Your task to perform on an android device: choose inbox layout in the gmail app Image 0: 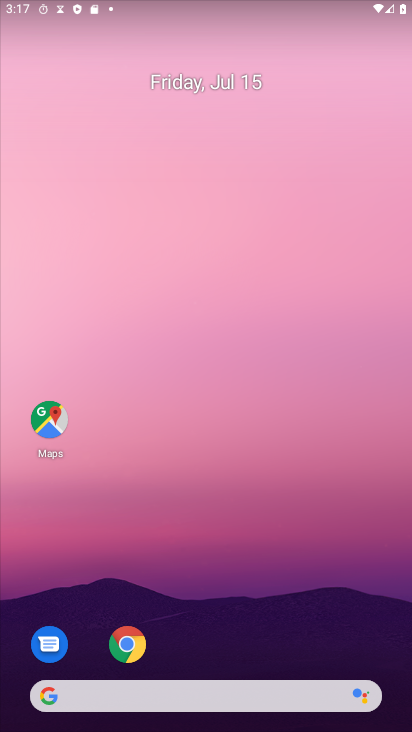
Step 0: drag from (246, 625) to (211, 100)
Your task to perform on an android device: choose inbox layout in the gmail app Image 1: 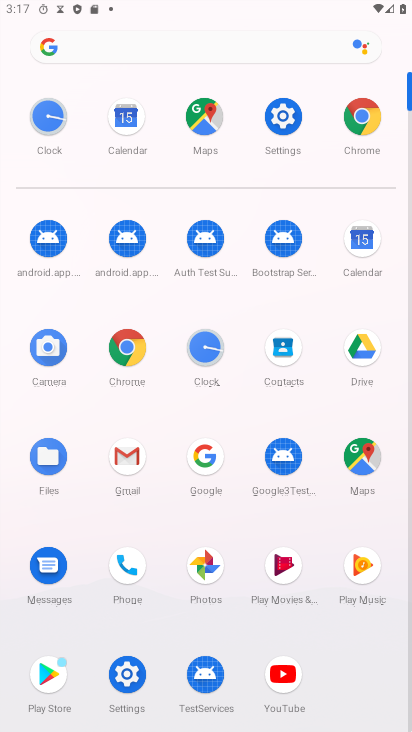
Step 1: click (129, 462)
Your task to perform on an android device: choose inbox layout in the gmail app Image 2: 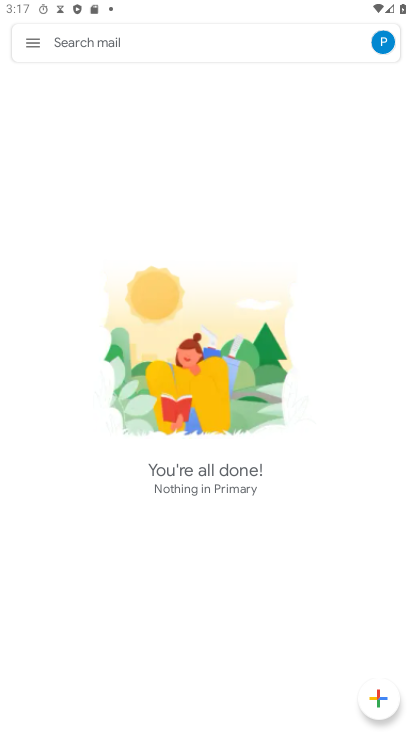
Step 2: click (29, 42)
Your task to perform on an android device: choose inbox layout in the gmail app Image 3: 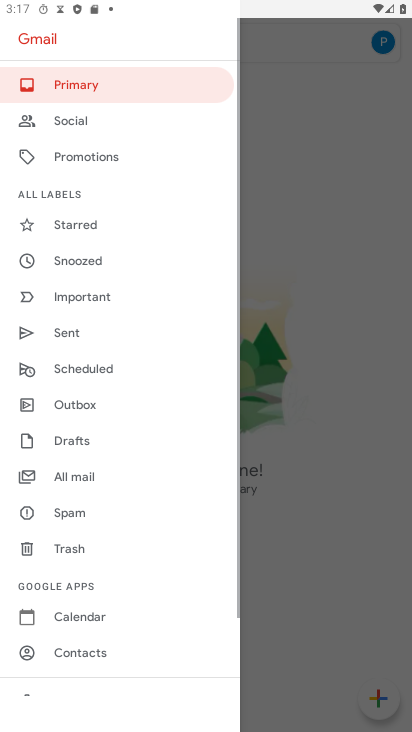
Step 3: drag from (97, 679) to (122, 269)
Your task to perform on an android device: choose inbox layout in the gmail app Image 4: 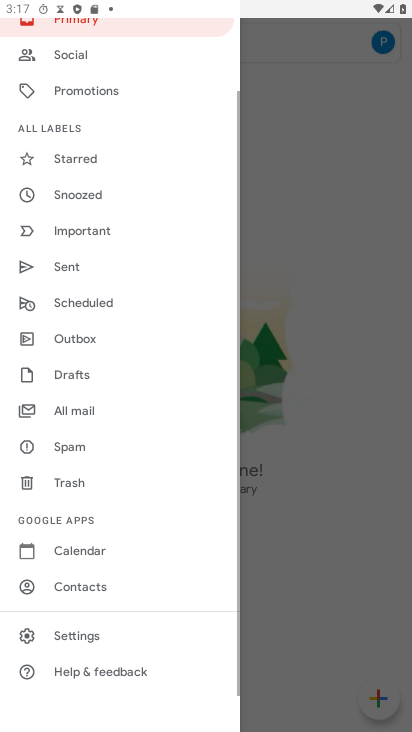
Step 4: click (121, 633)
Your task to perform on an android device: choose inbox layout in the gmail app Image 5: 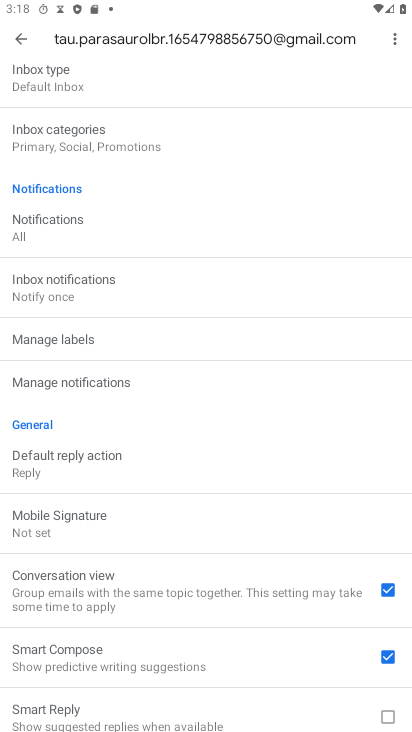
Step 5: drag from (63, 136) to (130, 679)
Your task to perform on an android device: choose inbox layout in the gmail app Image 6: 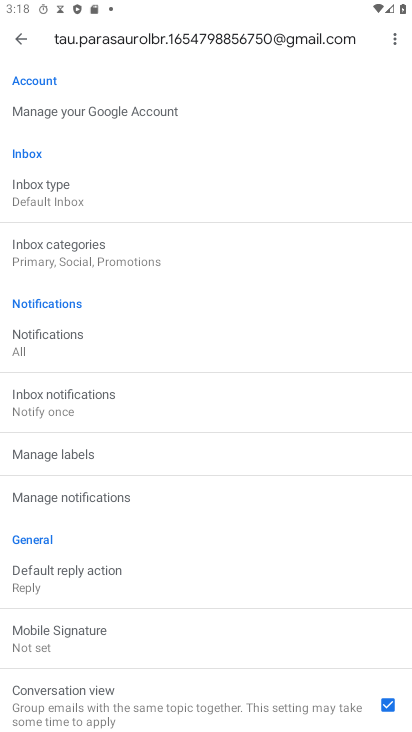
Step 6: click (42, 191)
Your task to perform on an android device: choose inbox layout in the gmail app Image 7: 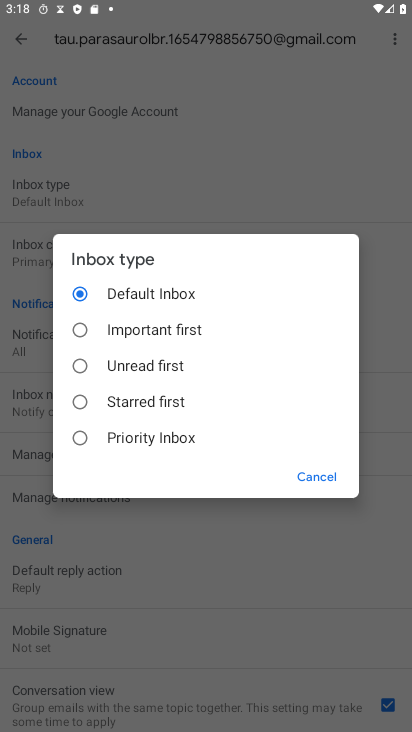
Step 7: task complete